Your task to perform on an android device: Open the stopwatch Image 0: 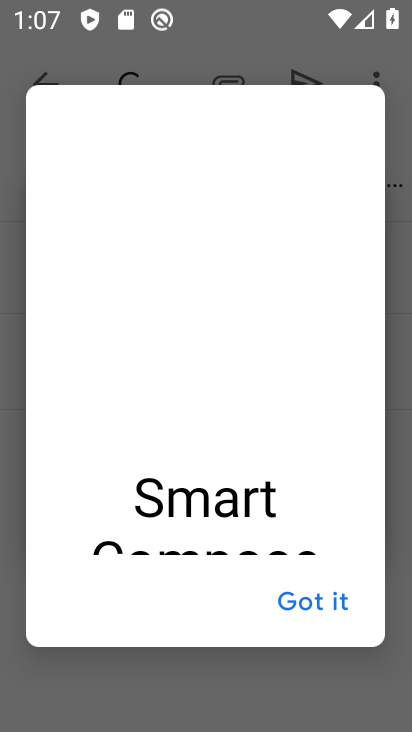
Step 0: press home button
Your task to perform on an android device: Open the stopwatch Image 1: 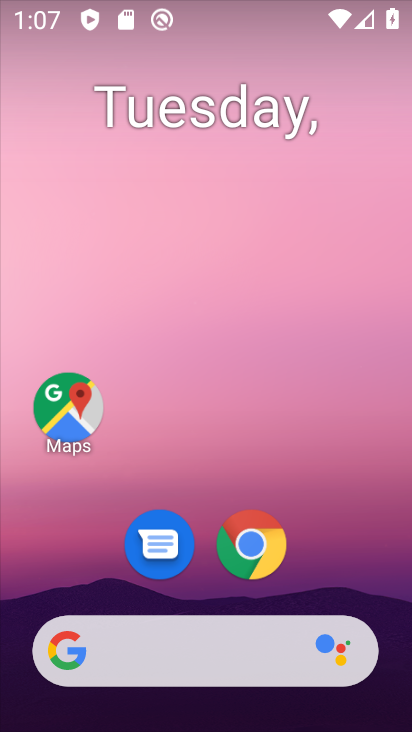
Step 1: drag from (398, 637) to (307, 128)
Your task to perform on an android device: Open the stopwatch Image 2: 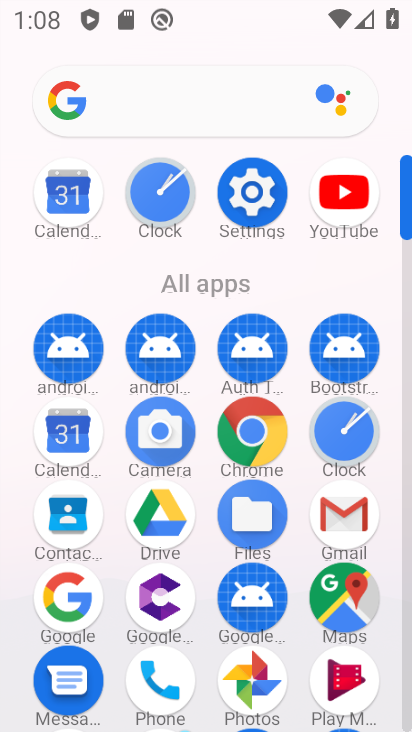
Step 2: click (341, 429)
Your task to perform on an android device: Open the stopwatch Image 3: 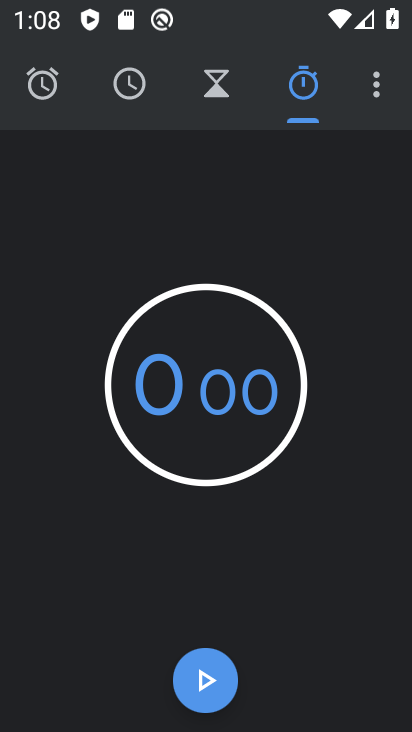
Step 3: task complete